Your task to perform on an android device: stop showing notifications on the lock screen Image 0: 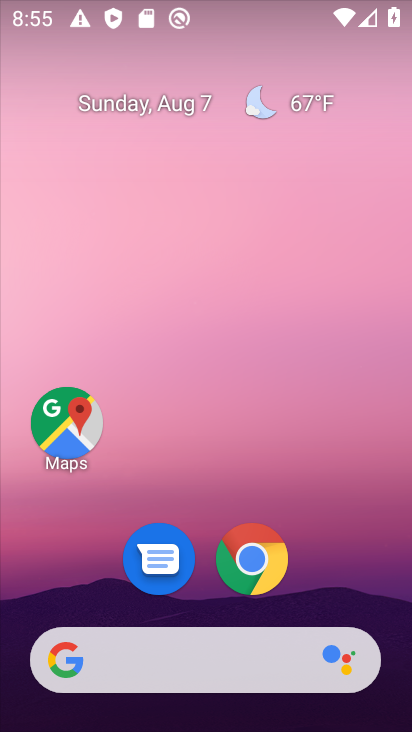
Step 0: drag from (298, 429) to (233, 208)
Your task to perform on an android device: stop showing notifications on the lock screen Image 1: 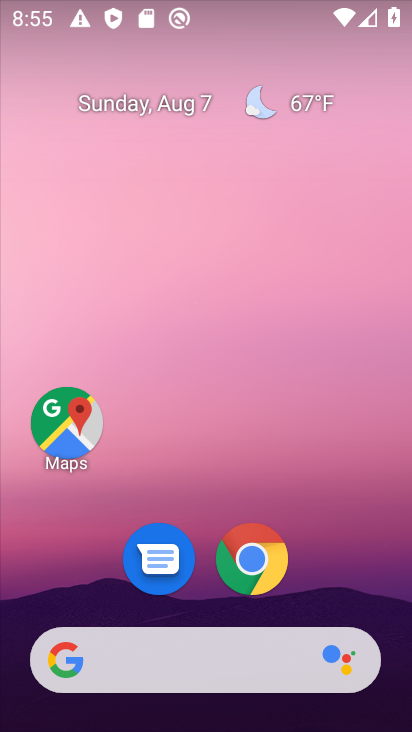
Step 1: drag from (381, 596) to (303, 200)
Your task to perform on an android device: stop showing notifications on the lock screen Image 2: 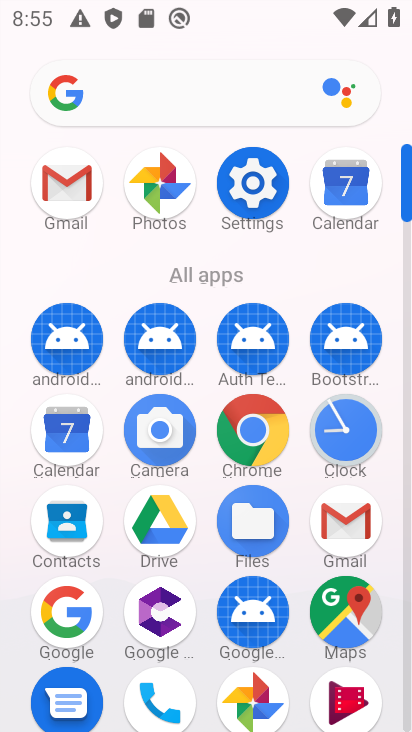
Step 2: click (257, 197)
Your task to perform on an android device: stop showing notifications on the lock screen Image 3: 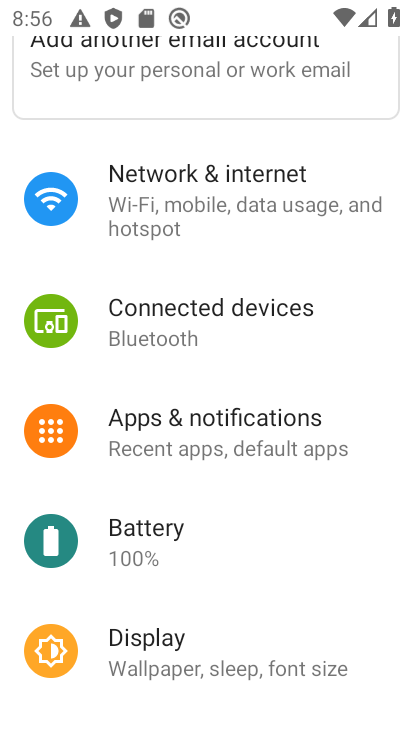
Step 3: click (265, 426)
Your task to perform on an android device: stop showing notifications on the lock screen Image 4: 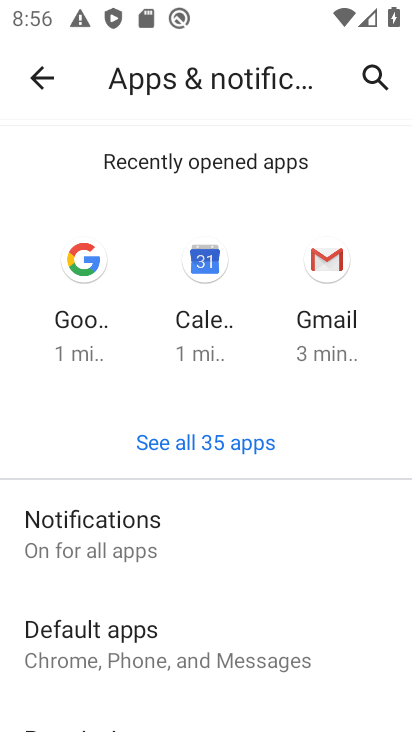
Step 4: click (200, 542)
Your task to perform on an android device: stop showing notifications on the lock screen Image 5: 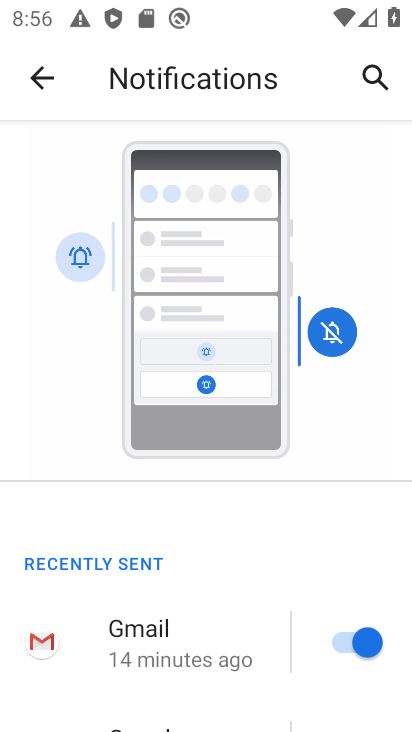
Step 5: drag from (264, 593) to (226, 294)
Your task to perform on an android device: stop showing notifications on the lock screen Image 6: 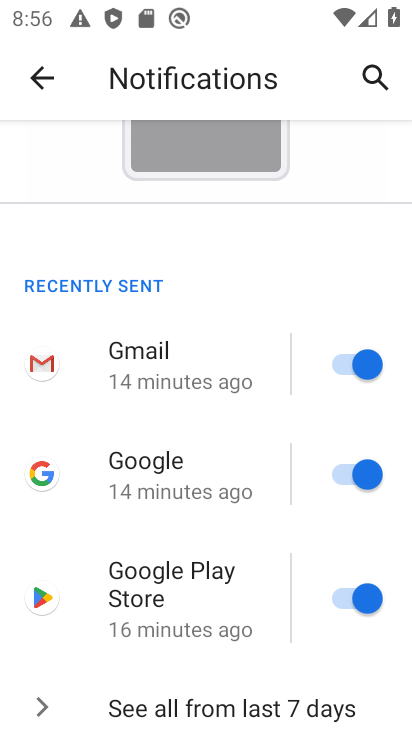
Step 6: drag from (298, 665) to (268, 372)
Your task to perform on an android device: stop showing notifications on the lock screen Image 7: 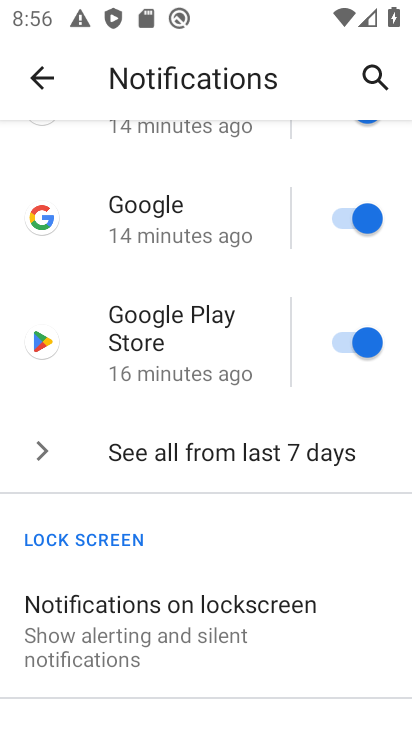
Step 7: click (291, 622)
Your task to perform on an android device: stop showing notifications on the lock screen Image 8: 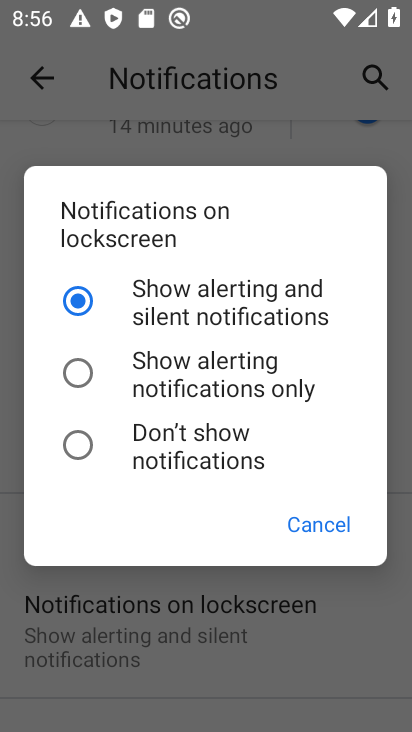
Step 8: click (74, 448)
Your task to perform on an android device: stop showing notifications on the lock screen Image 9: 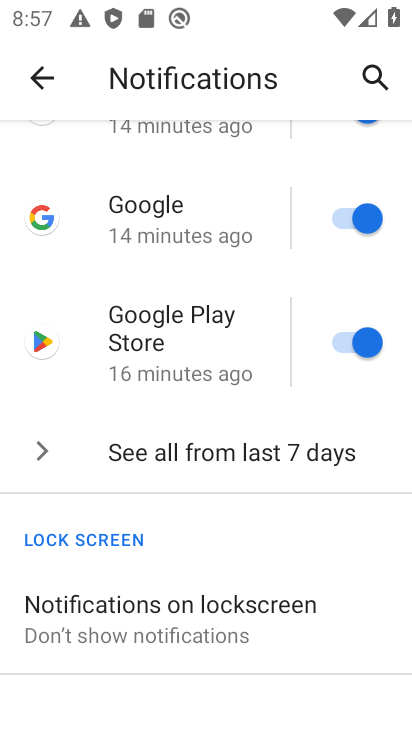
Step 9: task complete